Your task to perform on an android device: Open Google Chrome and open the bookmarks view Image 0: 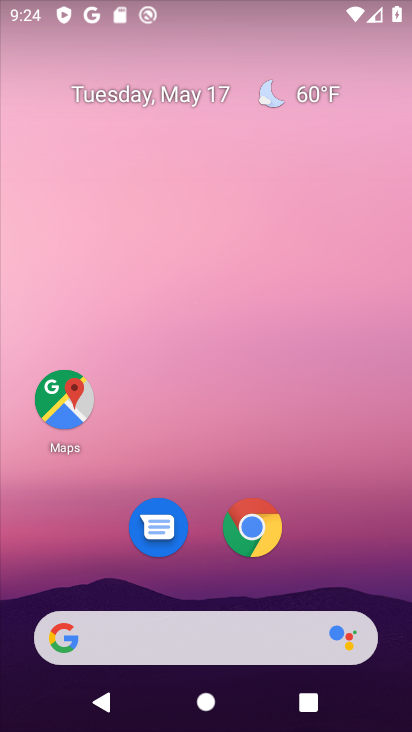
Step 0: click (262, 536)
Your task to perform on an android device: Open Google Chrome and open the bookmarks view Image 1: 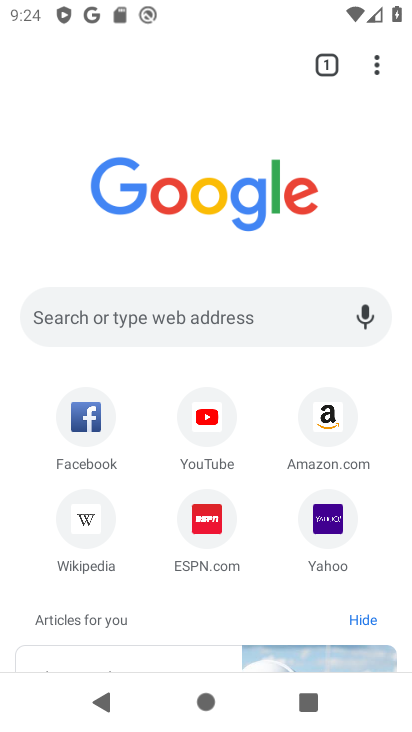
Step 1: click (378, 59)
Your task to perform on an android device: Open Google Chrome and open the bookmarks view Image 2: 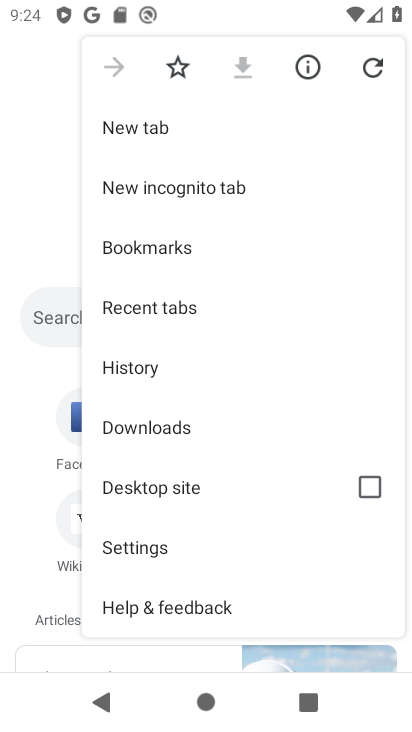
Step 2: click (179, 244)
Your task to perform on an android device: Open Google Chrome and open the bookmarks view Image 3: 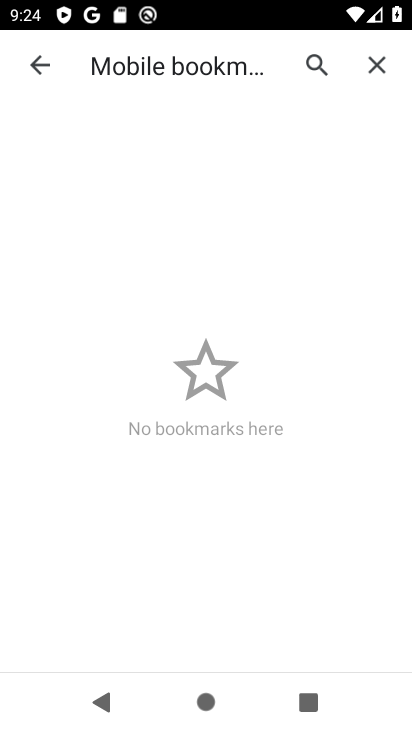
Step 3: task complete